Your task to perform on an android device: change the clock display to show seconds Image 0: 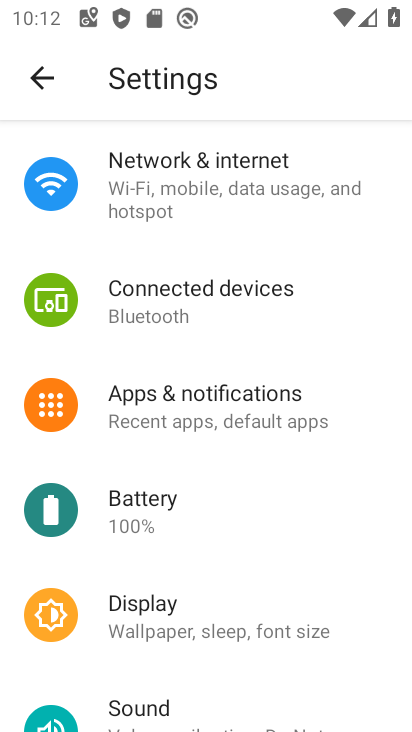
Step 0: press home button
Your task to perform on an android device: change the clock display to show seconds Image 1: 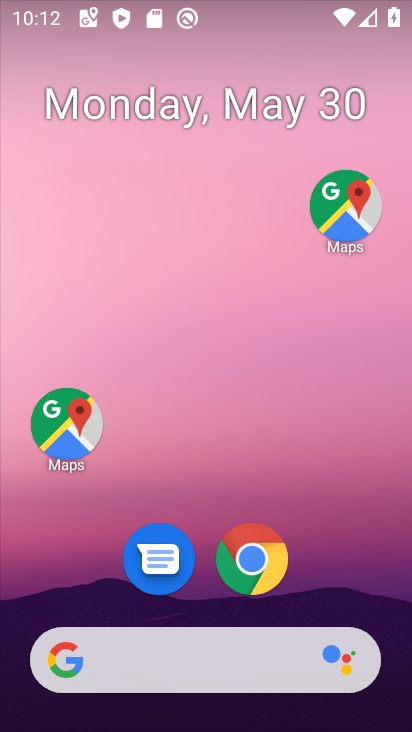
Step 1: drag from (325, 487) to (342, 142)
Your task to perform on an android device: change the clock display to show seconds Image 2: 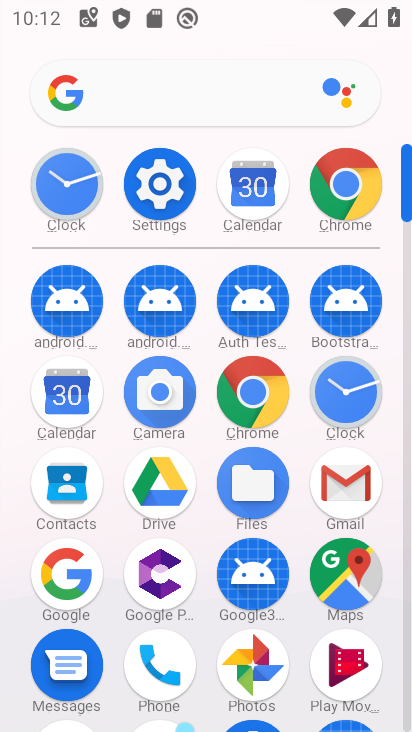
Step 2: click (336, 394)
Your task to perform on an android device: change the clock display to show seconds Image 3: 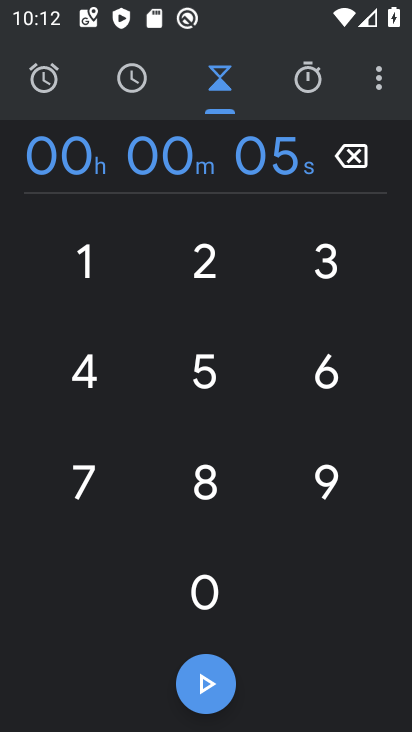
Step 3: click (375, 71)
Your task to perform on an android device: change the clock display to show seconds Image 4: 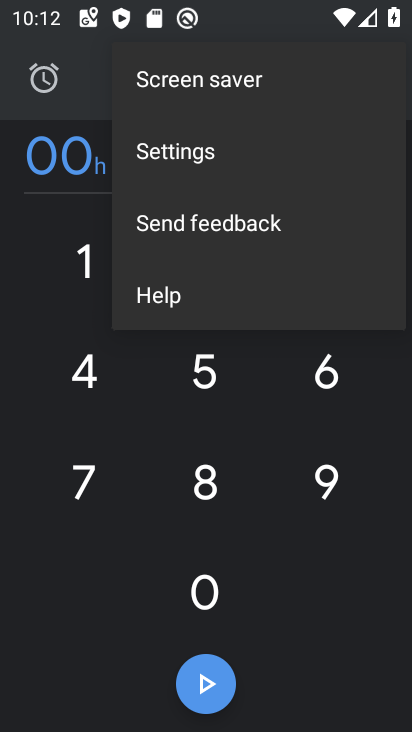
Step 4: click (231, 169)
Your task to perform on an android device: change the clock display to show seconds Image 5: 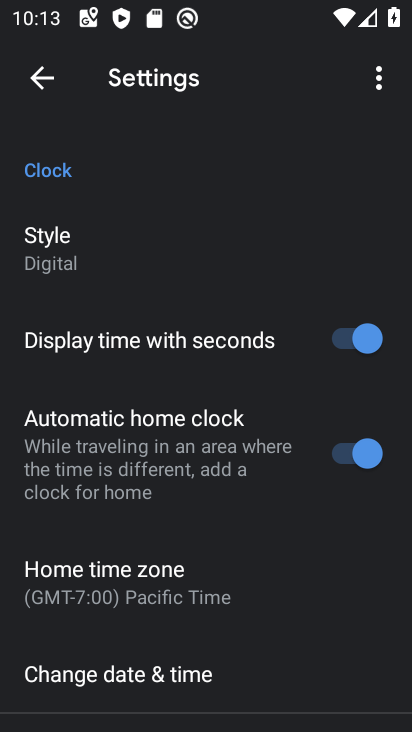
Step 5: task complete